Your task to perform on an android device: Show me recent news Image 0: 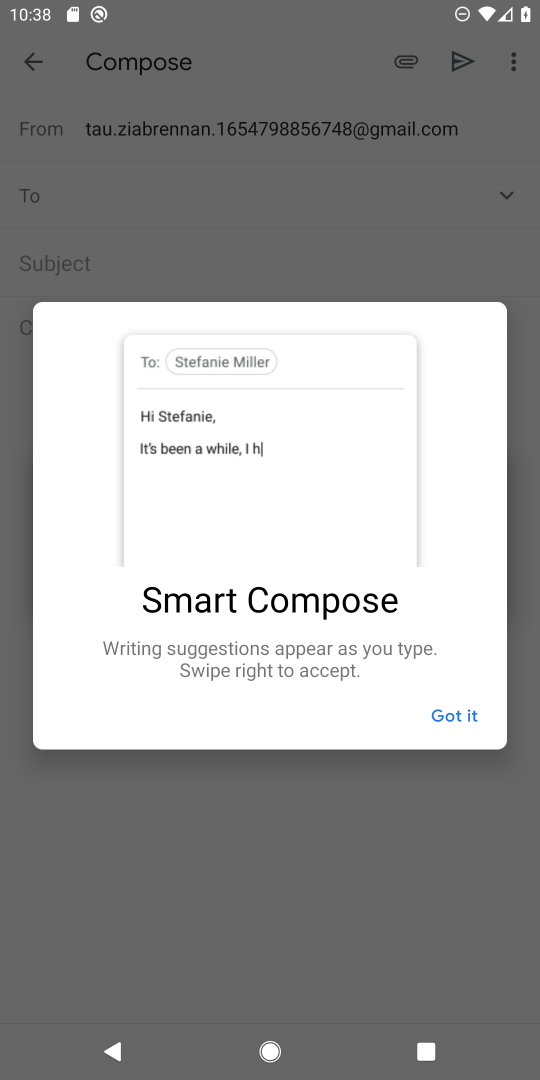
Step 0: press home button
Your task to perform on an android device: Show me recent news Image 1: 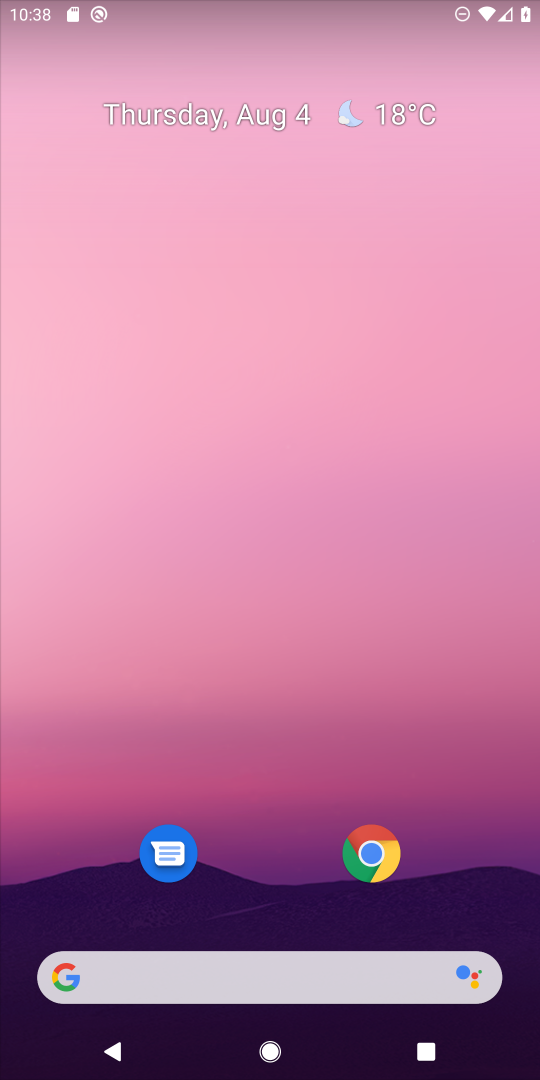
Step 1: click (298, 953)
Your task to perform on an android device: Show me recent news Image 2: 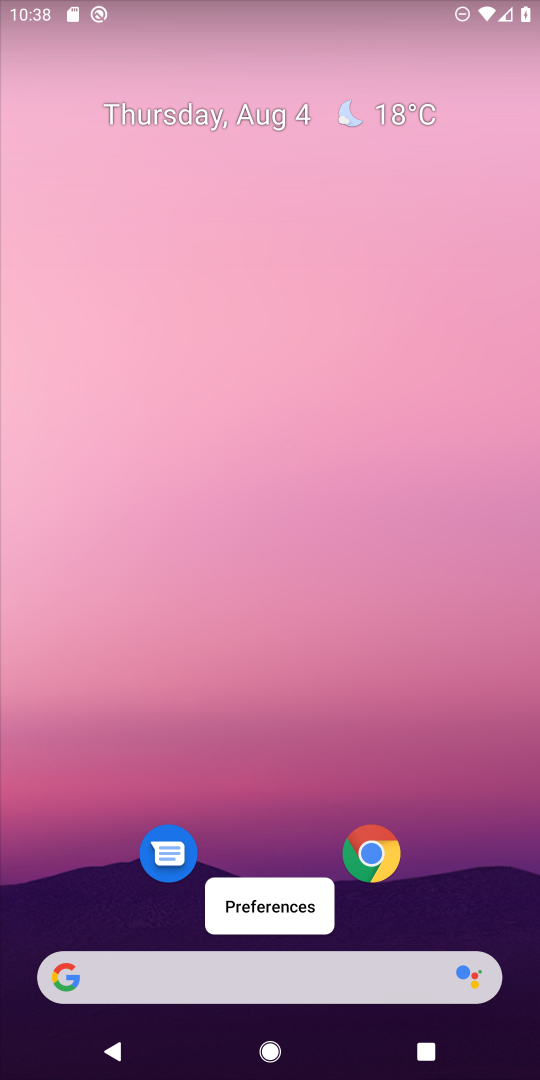
Step 2: click (224, 968)
Your task to perform on an android device: Show me recent news Image 3: 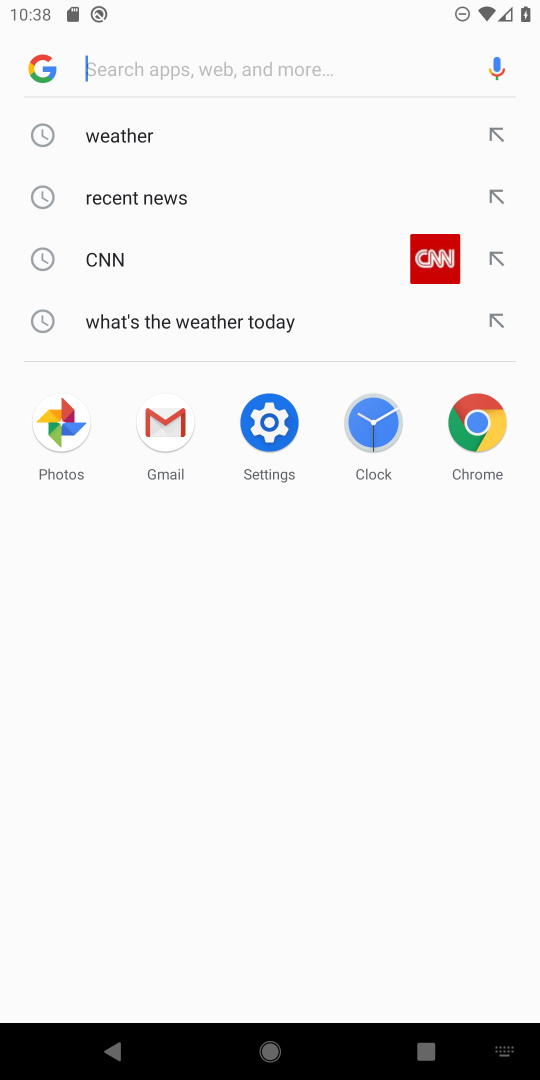
Step 3: click (182, 191)
Your task to perform on an android device: Show me recent news Image 4: 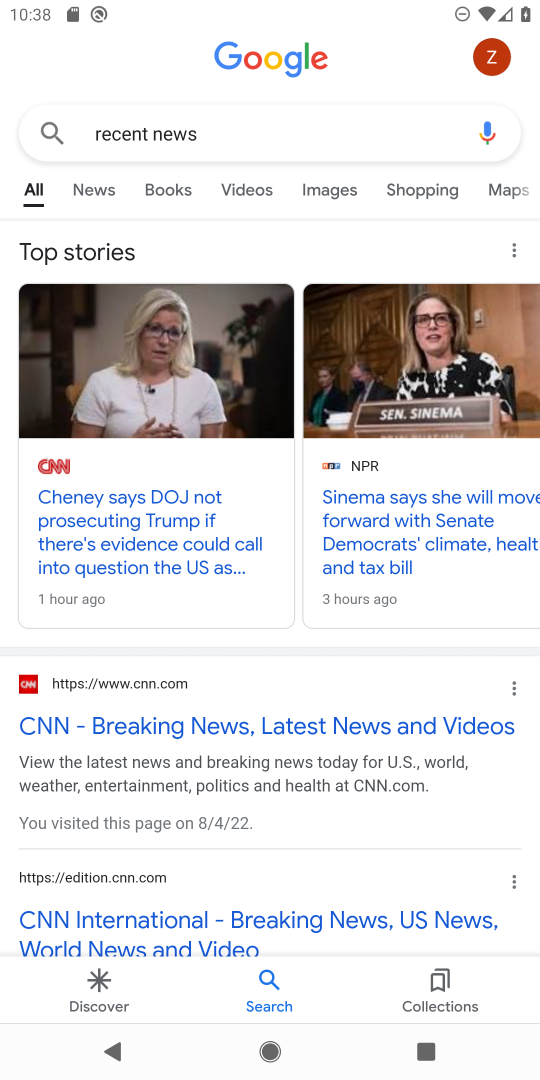
Step 4: click (102, 188)
Your task to perform on an android device: Show me recent news Image 5: 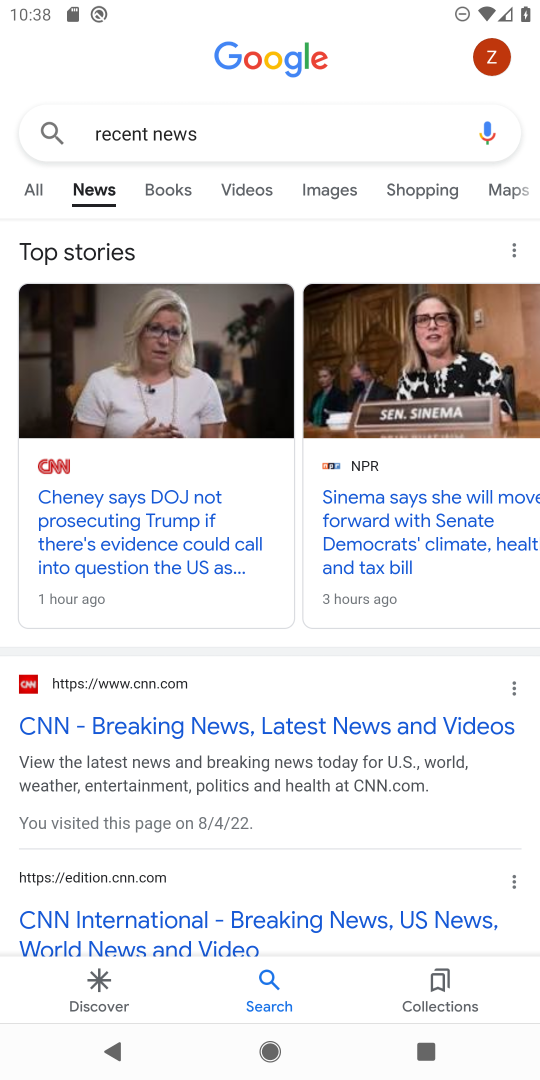
Step 5: task complete